Your task to perform on an android device: Check the weather Image 0: 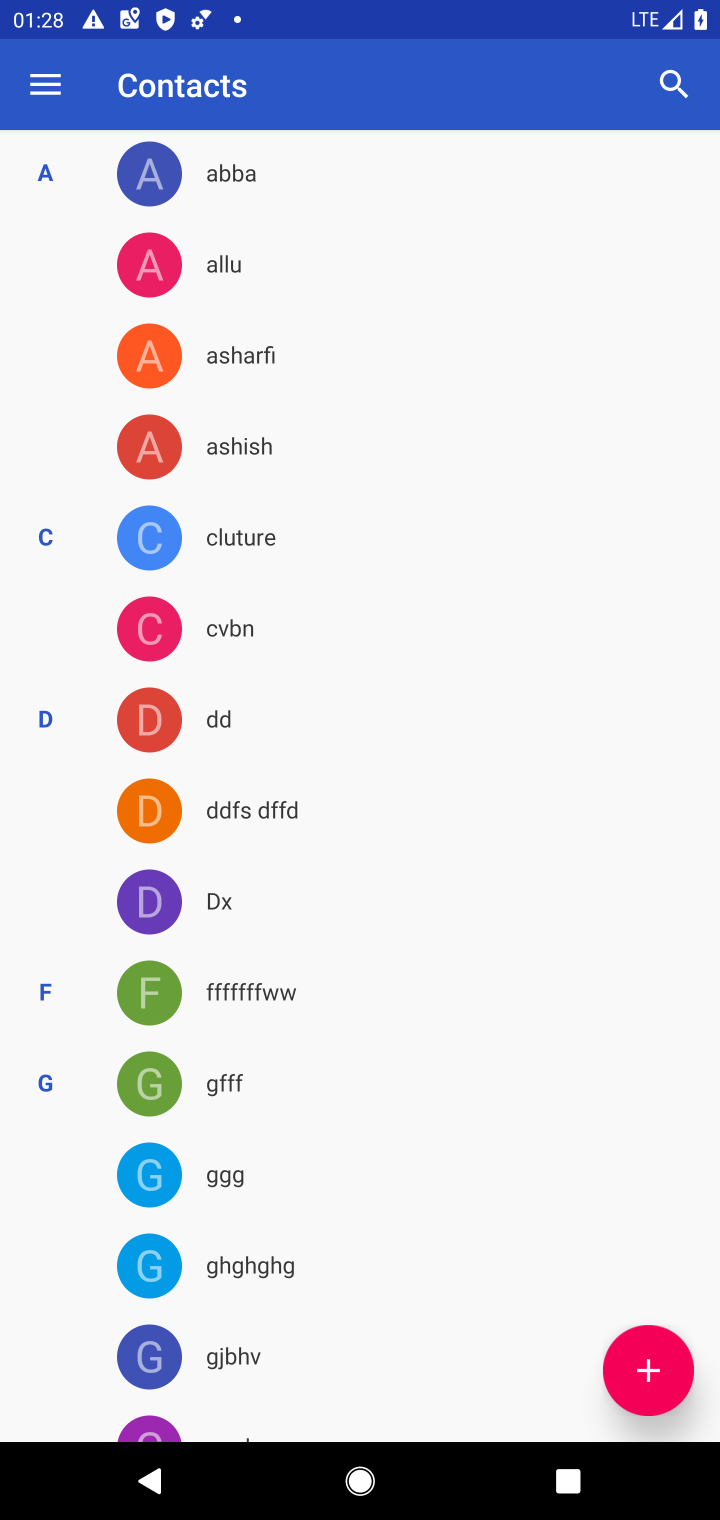
Step 0: press home button
Your task to perform on an android device: Check the weather Image 1: 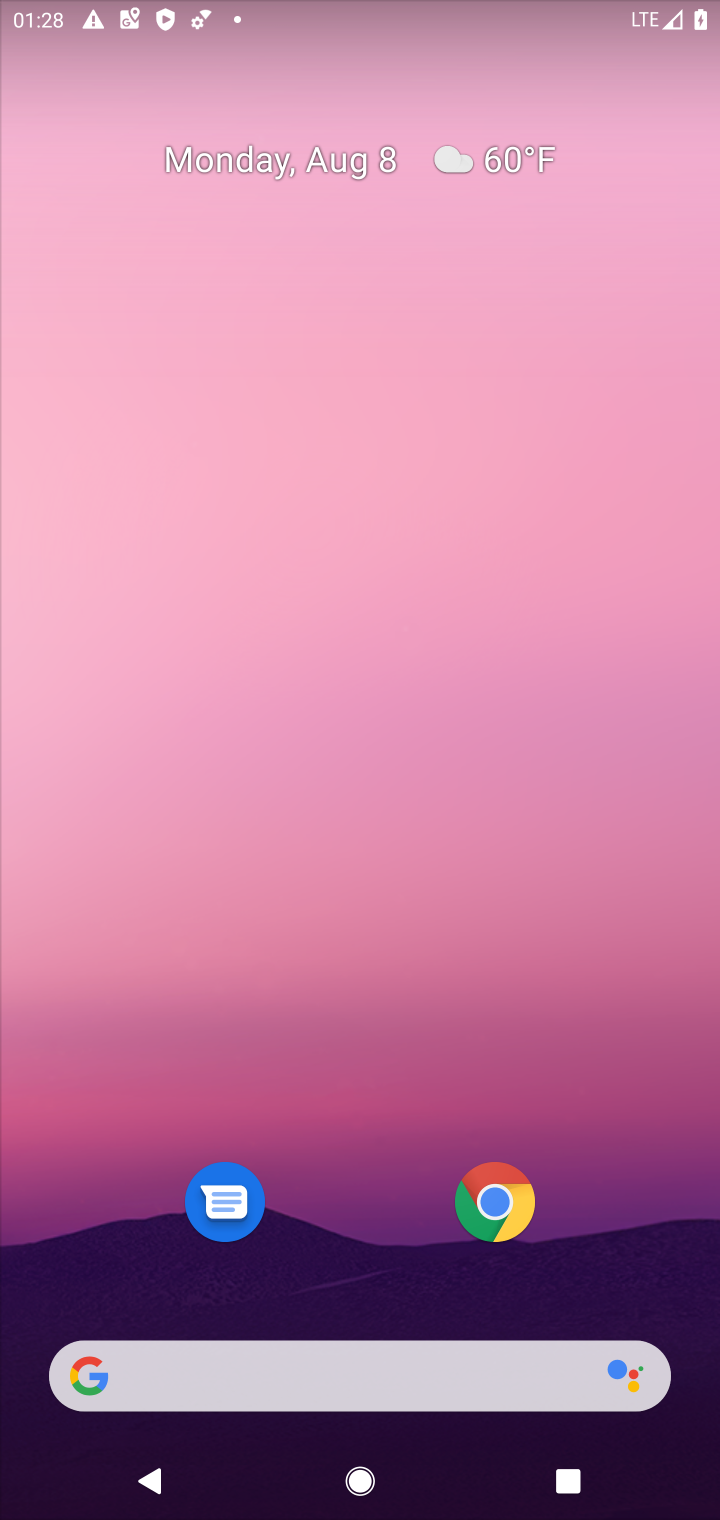
Step 1: click (362, 1367)
Your task to perform on an android device: Check the weather Image 2: 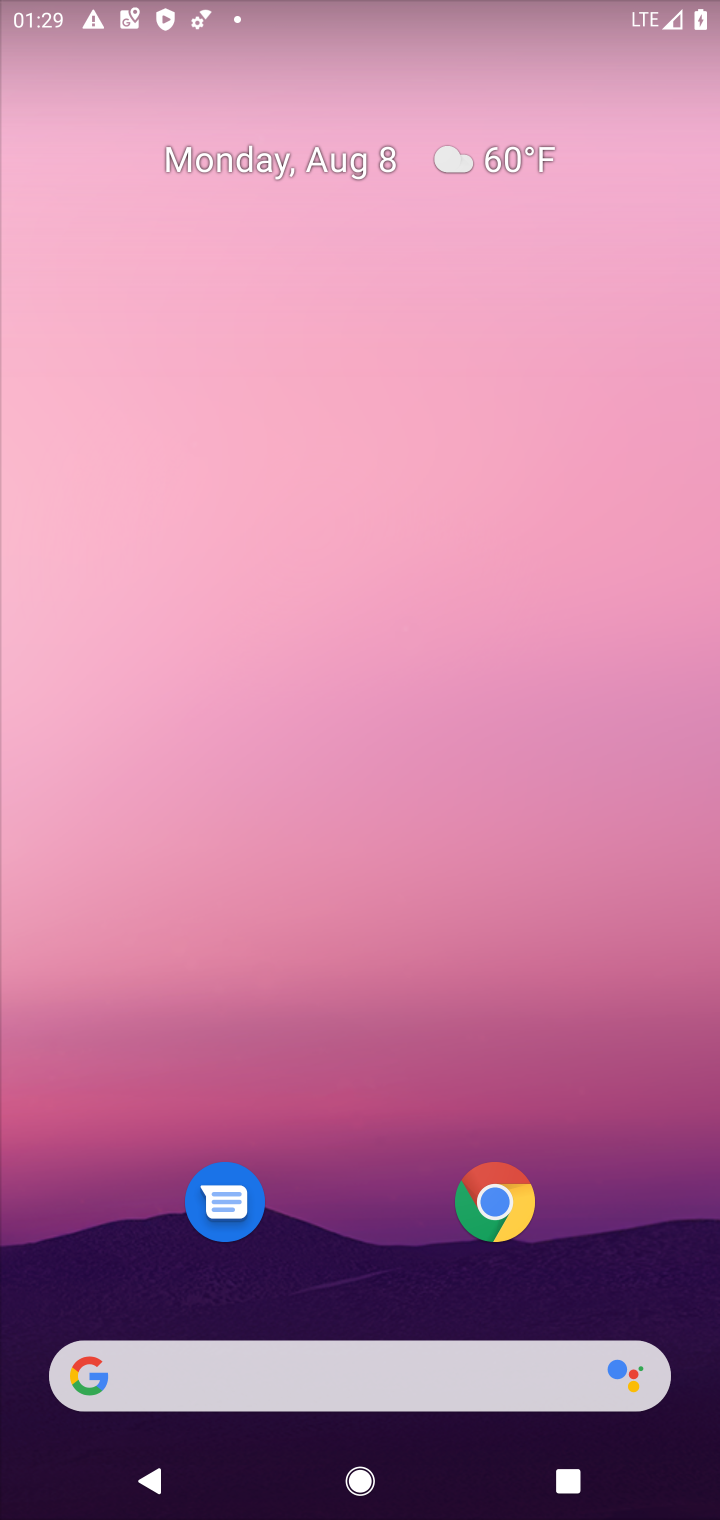
Step 2: click (362, 1367)
Your task to perform on an android device: Check the weather Image 3: 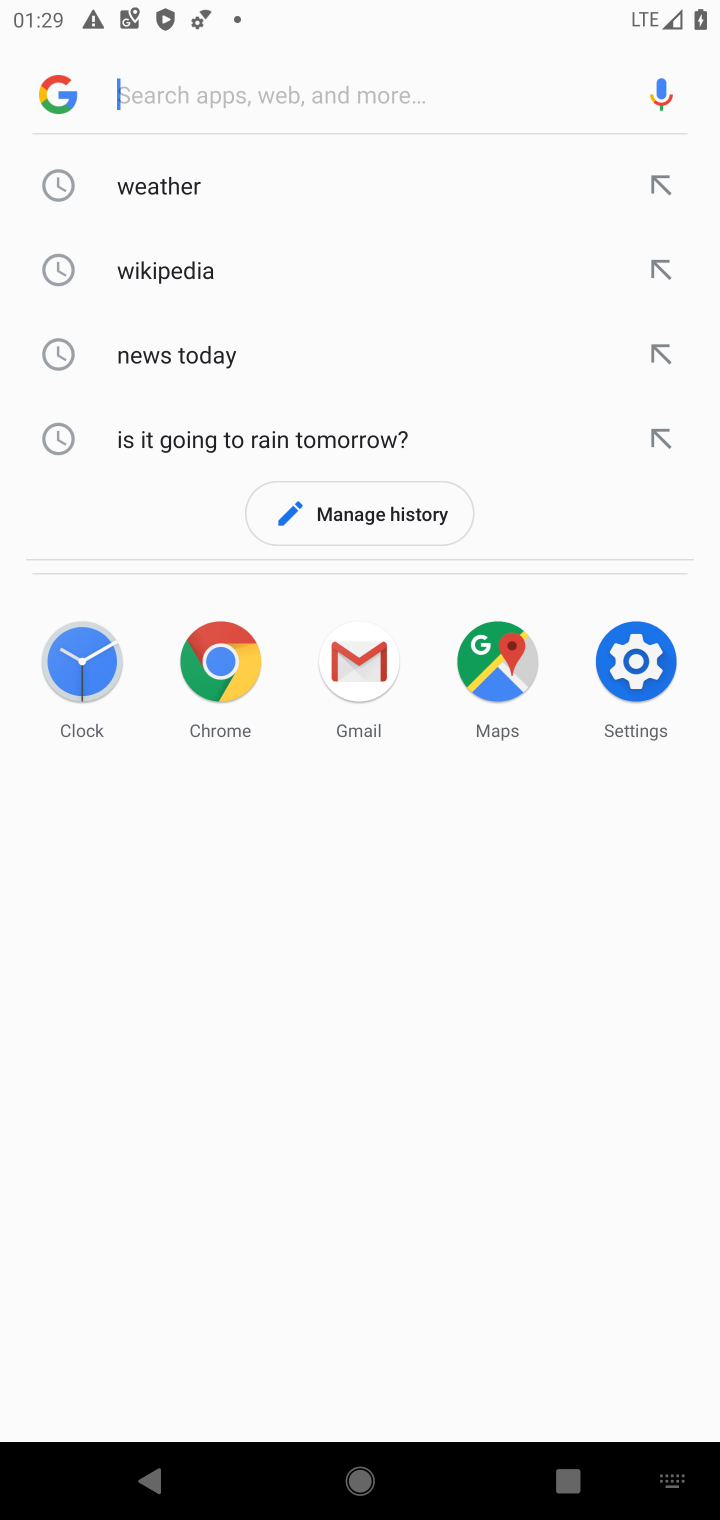
Step 3: click (182, 184)
Your task to perform on an android device: Check the weather Image 4: 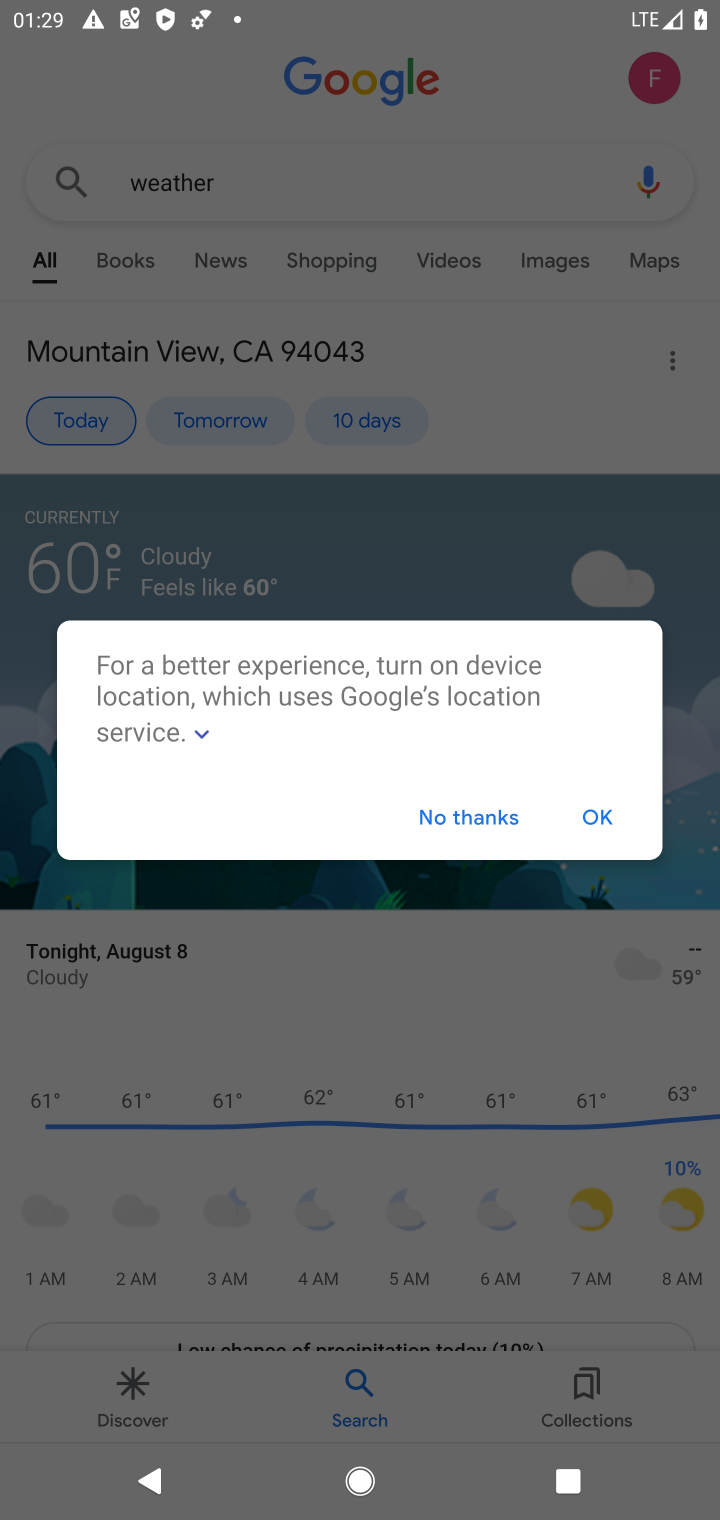
Step 4: click (444, 832)
Your task to perform on an android device: Check the weather Image 5: 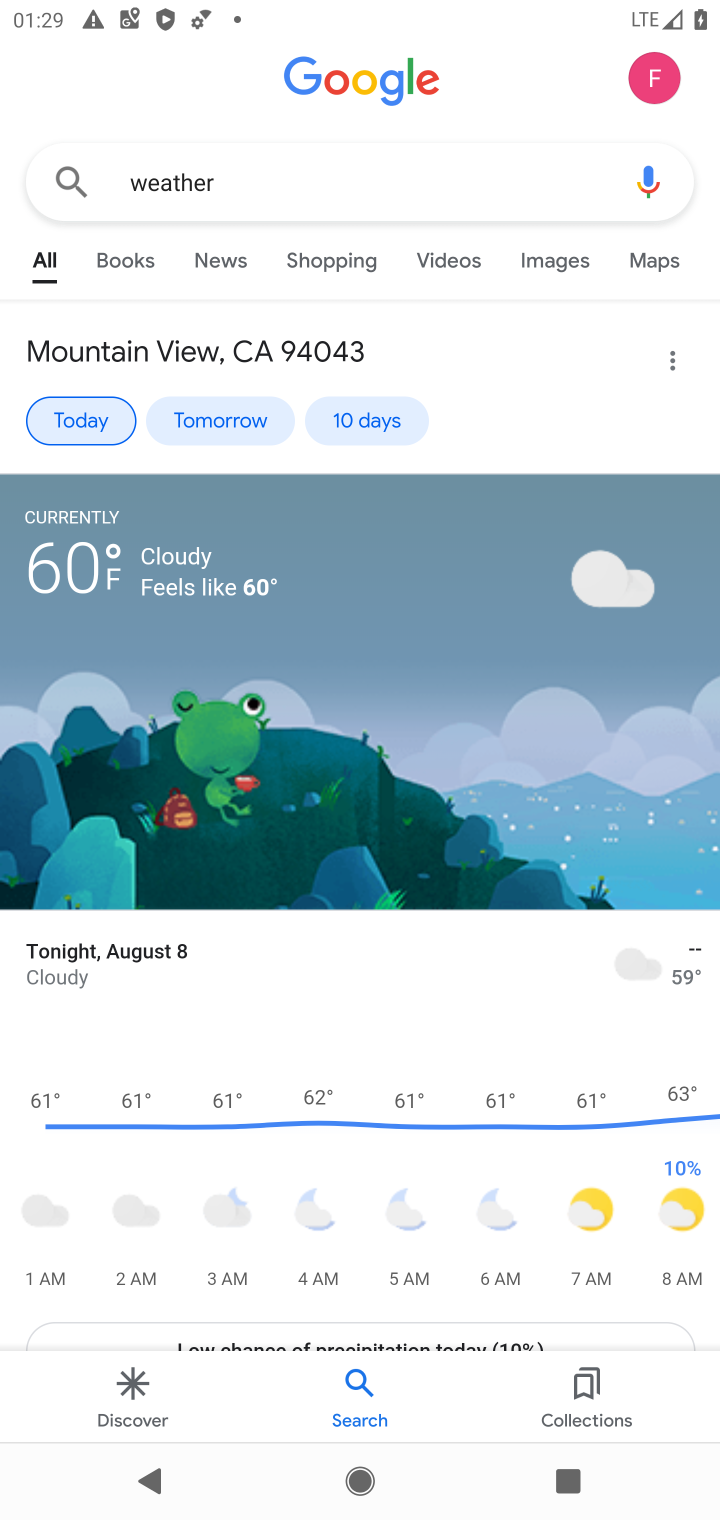
Step 5: task complete